Your task to perform on an android device: check storage Image 0: 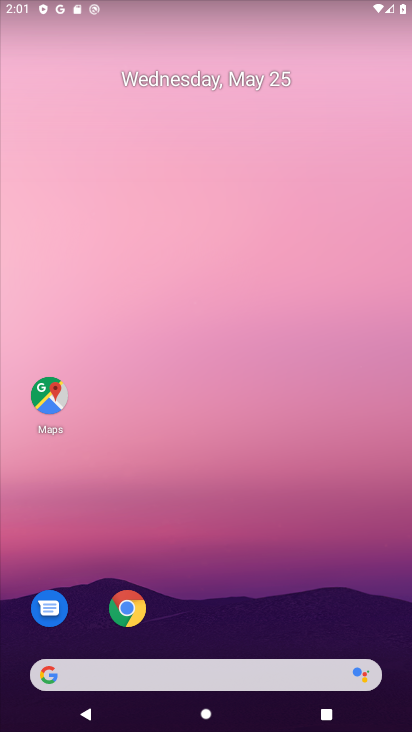
Step 0: drag from (192, 655) to (336, 82)
Your task to perform on an android device: check storage Image 1: 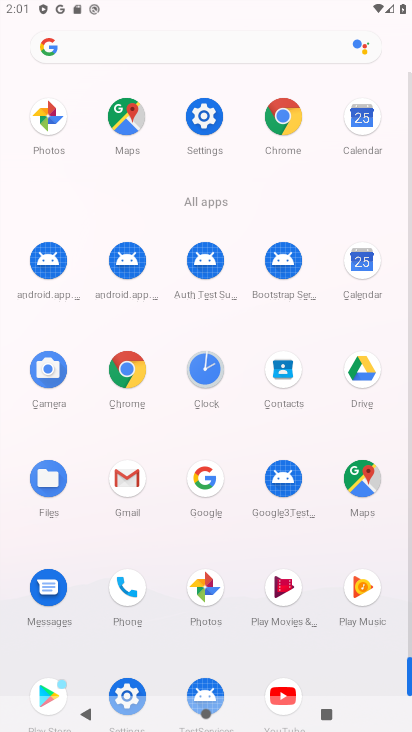
Step 1: click (204, 113)
Your task to perform on an android device: check storage Image 2: 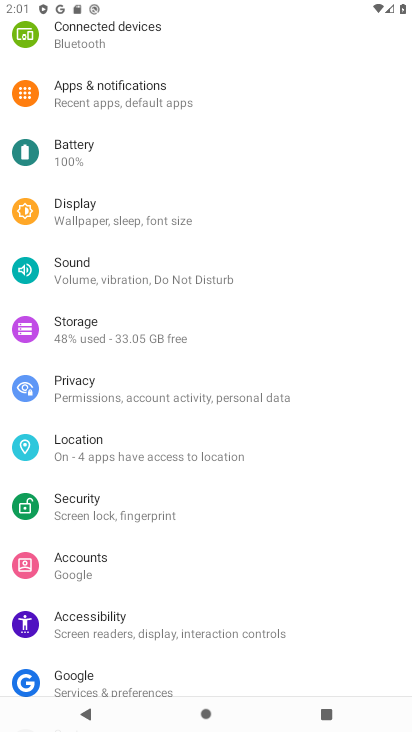
Step 2: click (129, 323)
Your task to perform on an android device: check storage Image 3: 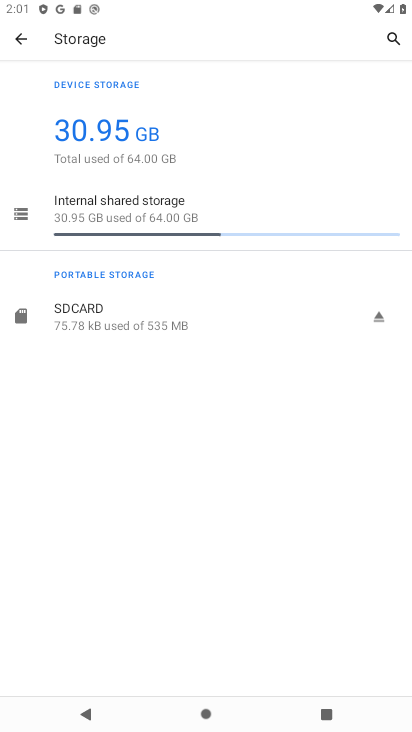
Step 3: task complete